Your task to perform on an android device: open a bookmark in the chrome app Image 0: 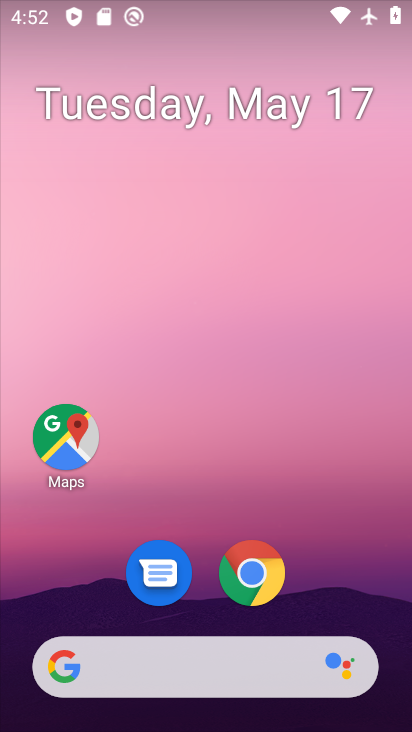
Step 0: drag from (241, 633) to (217, 0)
Your task to perform on an android device: open a bookmark in the chrome app Image 1: 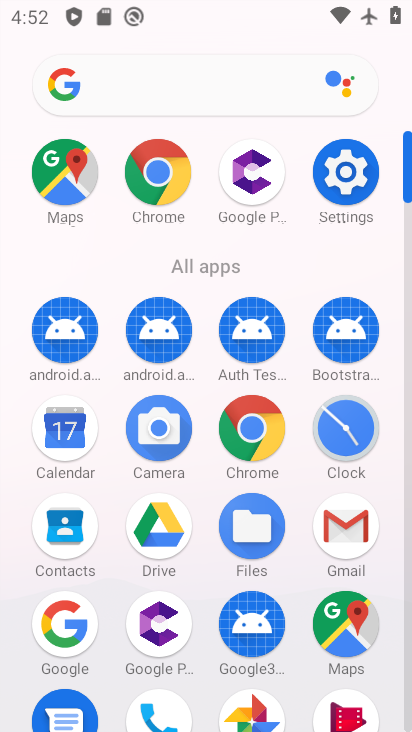
Step 1: click (255, 431)
Your task to perform on an android device: open a bookmark in the chrome app Image 2: 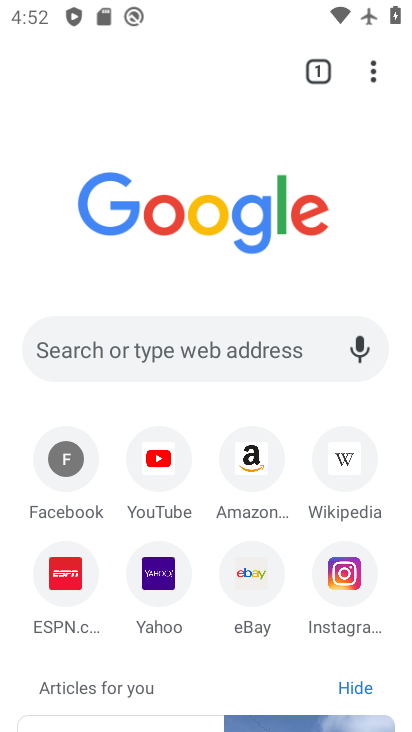
Step 2: click (370, 74)
Your task to perform on an android device: open a bookmark in the chrome app Image 3: 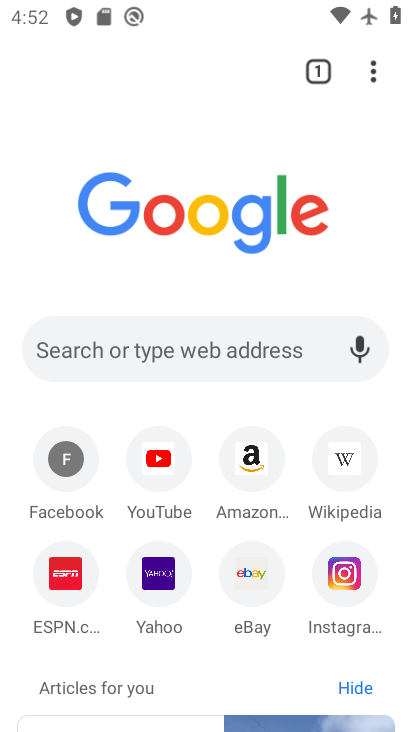
Step 3: click (370, 74)
Your task to perform on an android device: open a bookmark in the chrome app Image 4: 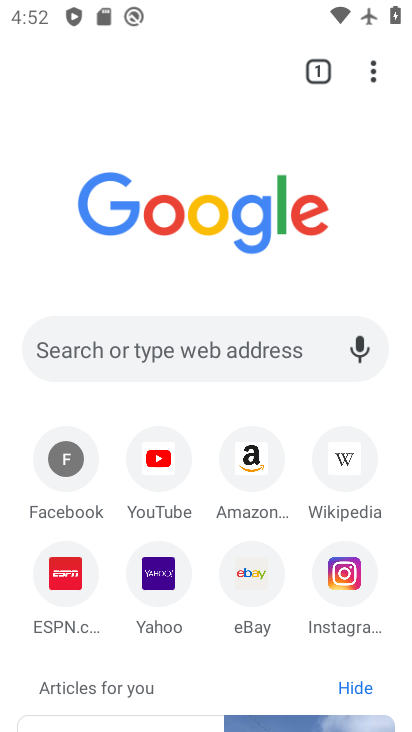
Step 4: click (368, 77)
Your task to perform on an android device: open a bookmark in the chrome app Image 5: 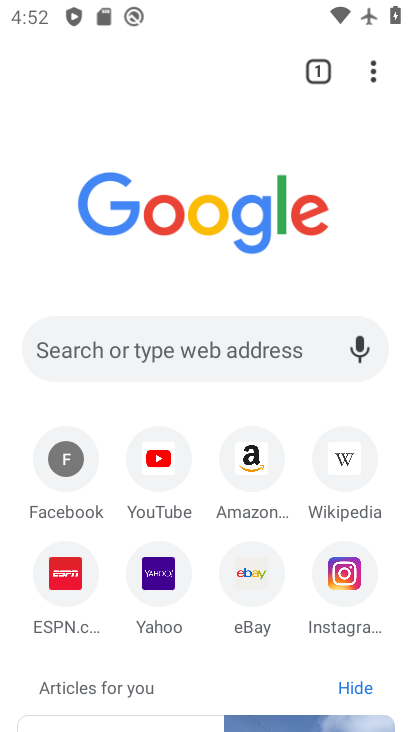
Step 5: task complete